Your task to perform on an android device: turn on notifications settings in the gmail app Image 0: 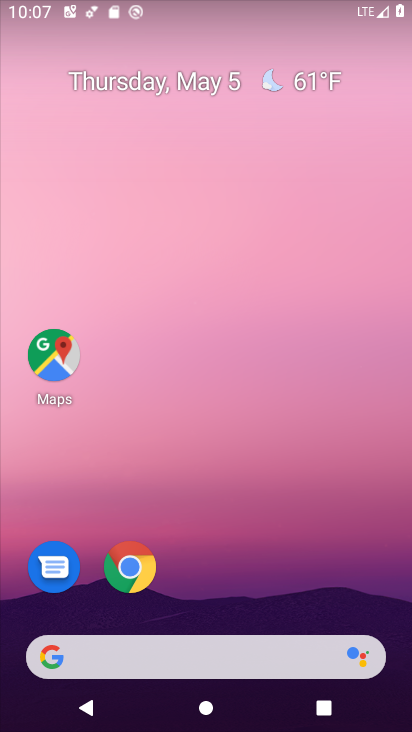
Step 0: drag from (298, 583) to (283, 142)
Your task to perform on an android device: turn on notifications settings in the gmail app Image 1: 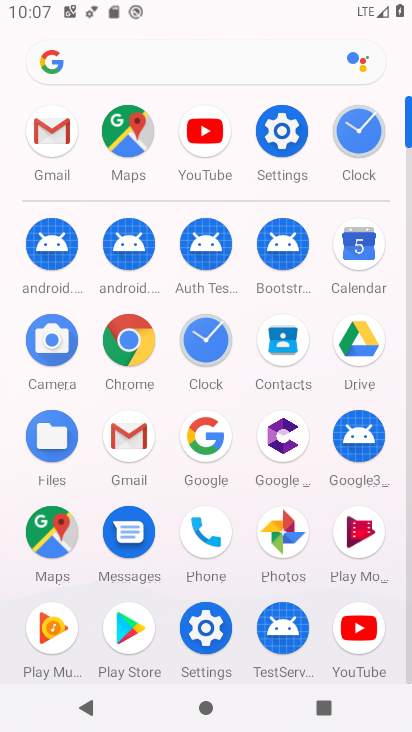
Step 1: click (61, 133)
Your task to perform on an android device: turn on notifications settings in the gmail app Image 2: 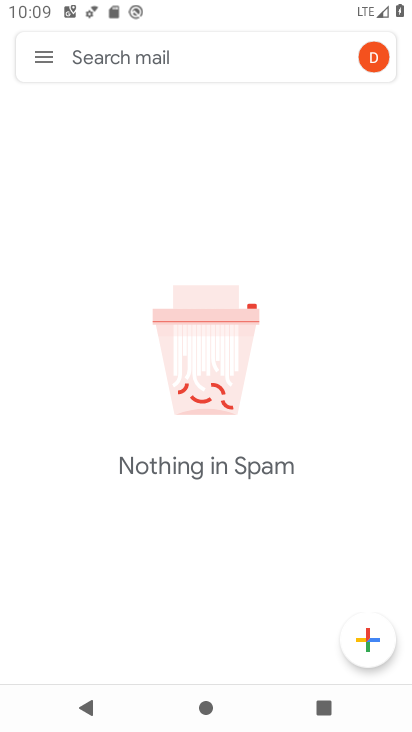
Step 2: click (44, 57)
Your task to perform on an android device: turn on notifications settings in the gmail app Image 3: 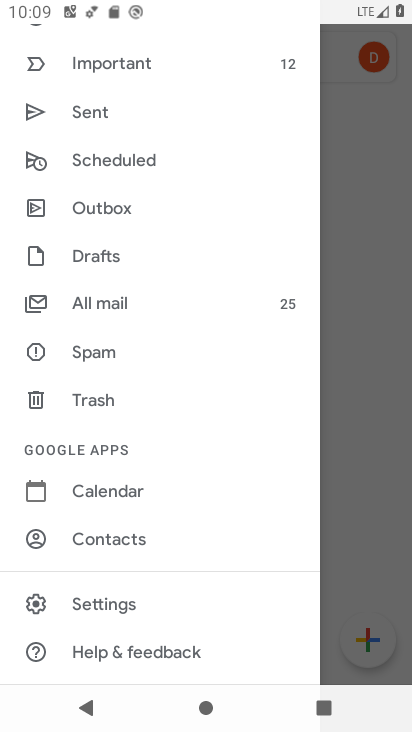
Step 3: click (124, 610)
Your task to perform on an android device: turn on notifications settings in the gmail app Image 4: 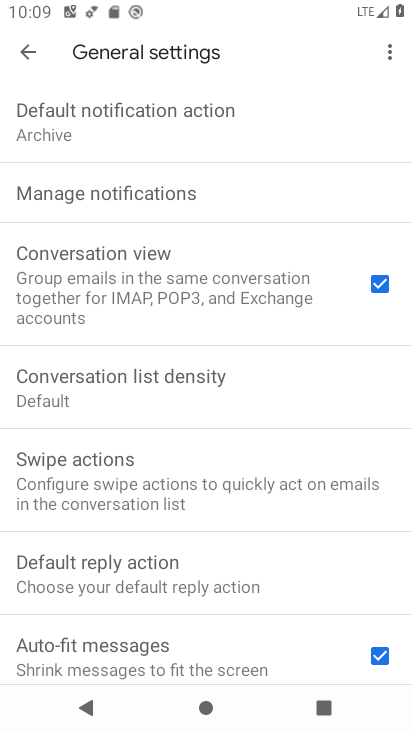
Step 4: click (204, 202)
Your task to perform on an android device: turn on notifications settings in the gmail app Image 5: 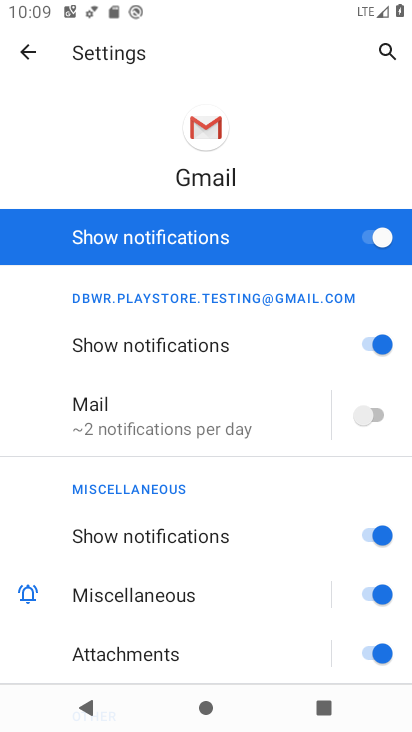
Step 5: task complete